Your task to perform on an android device: Go to calendar. Show me events next week Image 0: 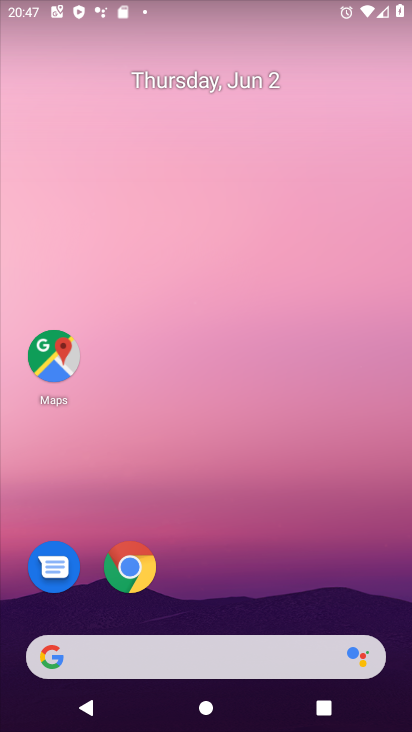
Step 0: drag from (252, 560) to (169, 68)
Your task to perform on an android device: Go to calendar. Show me events next week Image 1: 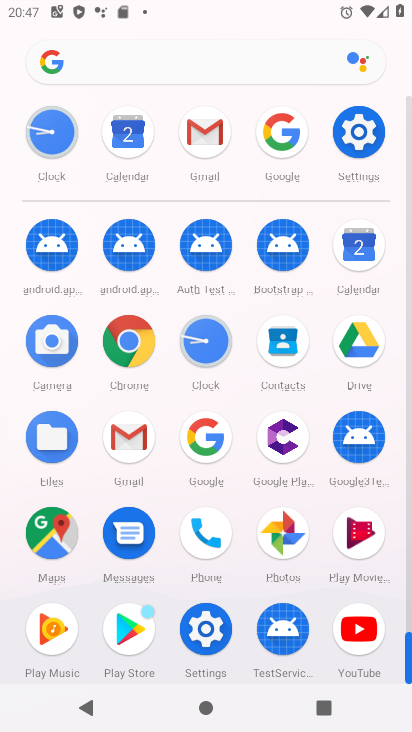
Step 1: click (129, 134)
Your task to perform on an android device: Go to calendar. Show me events next week Image 2: 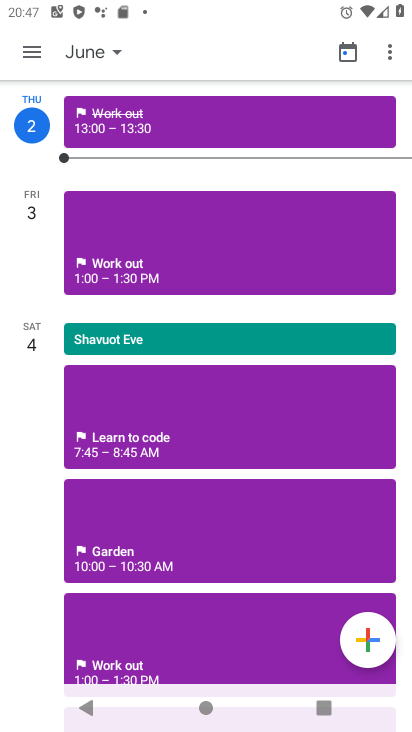
Step 2: click (345, 51)
Your task to perform on an android device: Go to calendar. Show me events next week Image 3: 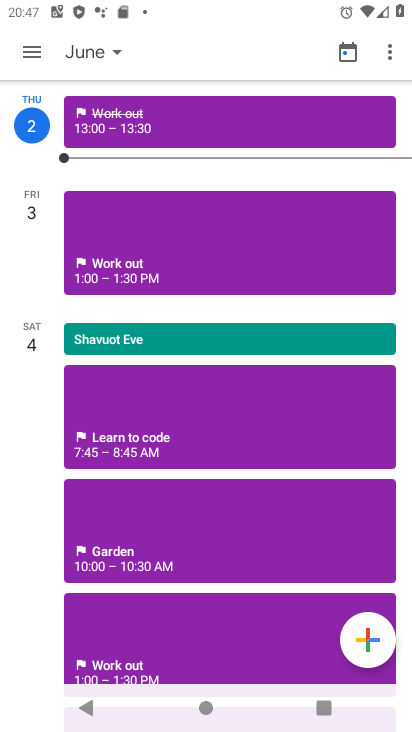
Step 3: click (116, 52)
Your task to perform on an android device: Go to calendar. Show me events next week Image 4: 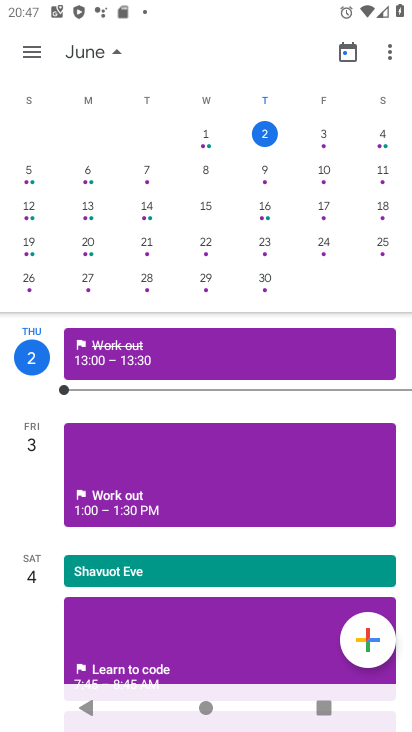
Step 4: click (84, 177)
Your task to perform on an android device: Go to calendar. Show me events next week Image 5: 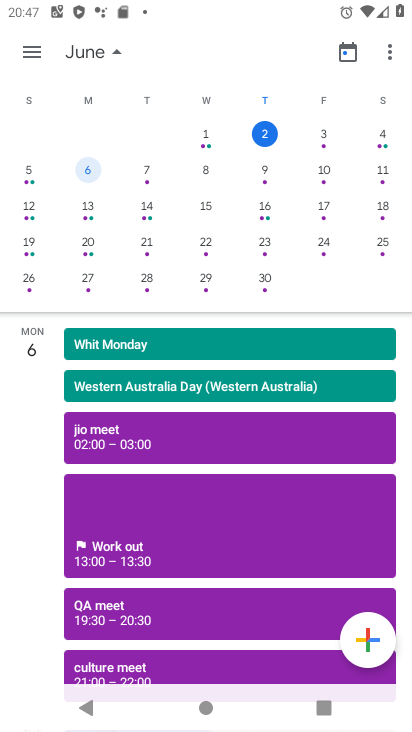
Step 5: click (38, 50)
Your task to perform on an android device: Go to calendar. Show me events next week Image 6: 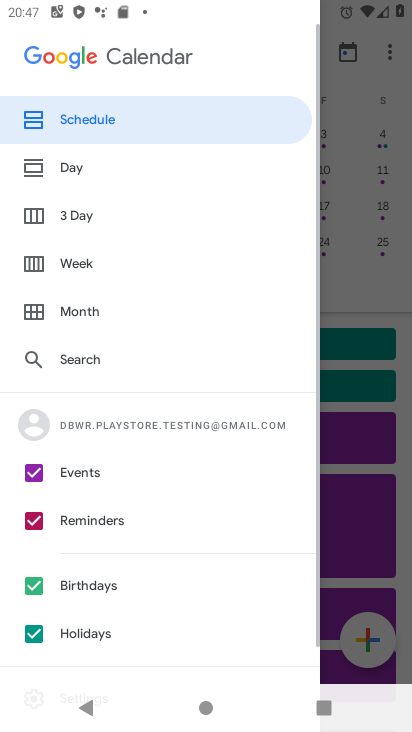
Step 6: click (82, 173)
Your task to perform on an android device: Go to calendar. Show me events next week Image 7: 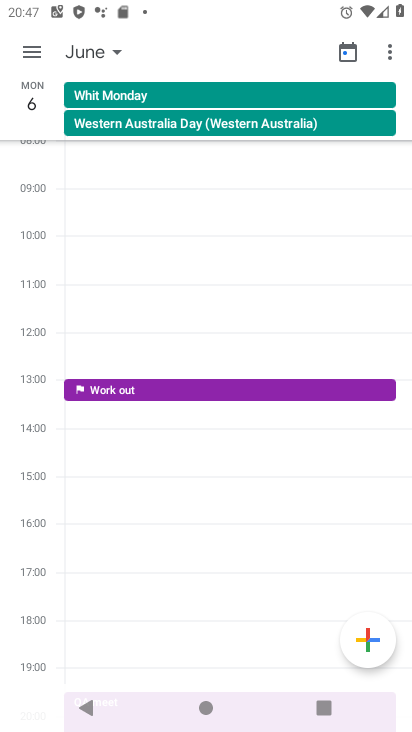
Step 7: click (23, 48)
Your task to perform on an android device: Go to calendar. Show me events next week Image 8: 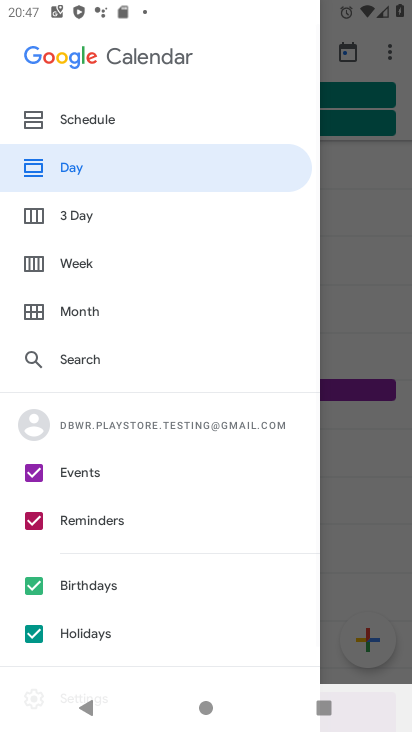
Step 8: click (102, 261)
Your task to perform on an android device: Go to calendar. Show me events next week Image 9: 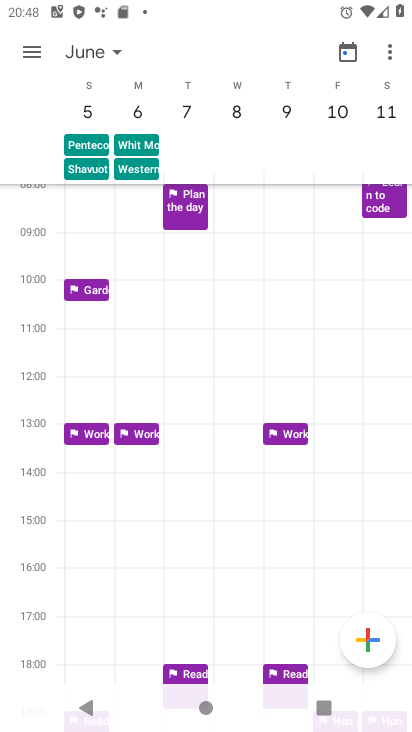
Step 9: task complete